Your task to perform on an android device: Show me popular games on the Play Store Image 0: 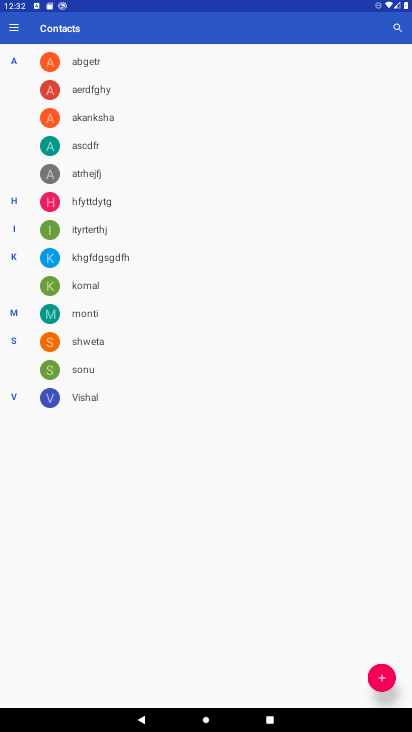
Step 0: press home button
Your task to perform on an android device: Show me popular games on the Play Store Image 1: 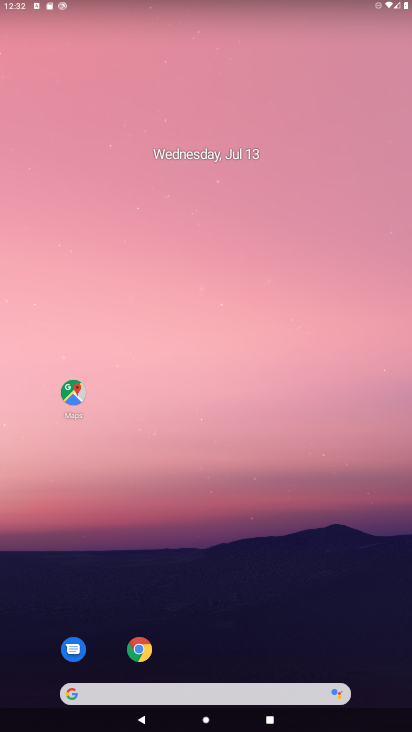
Step 1: drag from (357, 647) to (328, 85)
Your task to perform on an android device: Show me popular games on the Play Store Image 2: 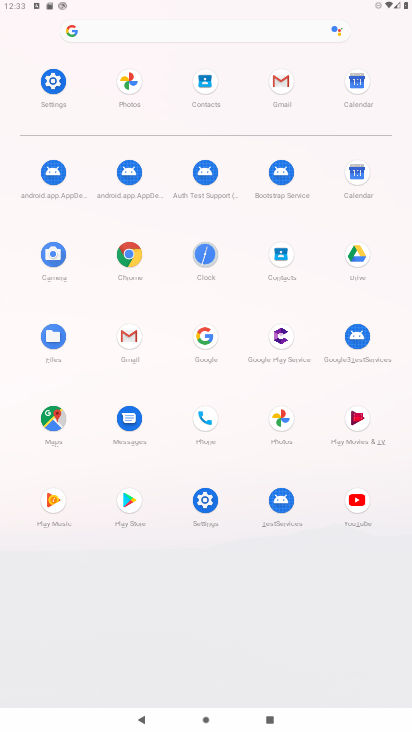
Step 2: click (128, 497)
Your task to perform on an android device: Show me popular games on the Play Store Image 3: 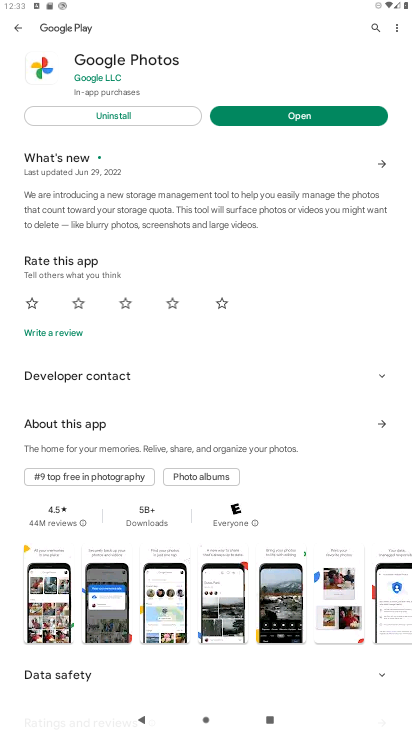
Step 3: press back button
Your task to perform on an android device: Show me popular games on the Play Store Image 4: 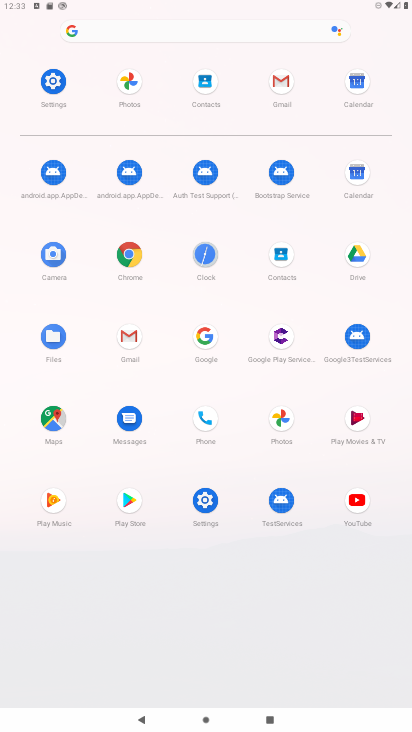
Step 4: click (129, 500)
Your task to perform on an android device: Show me popular games on the Play Store Image 5: 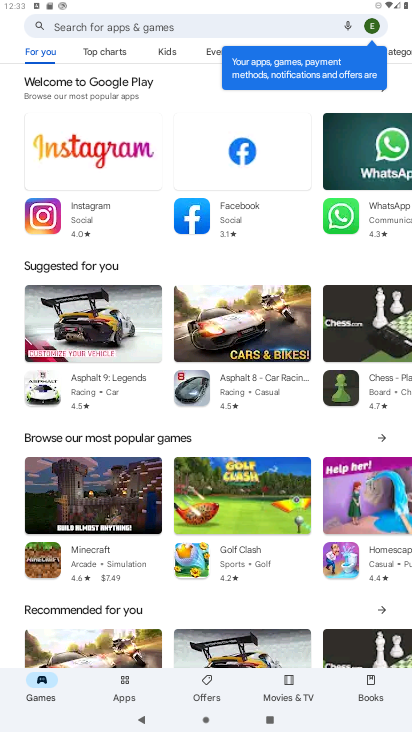
Step 5: click (382, 431)
Your task to perform on an android device: Show me popular games on the Play Store Image 6: 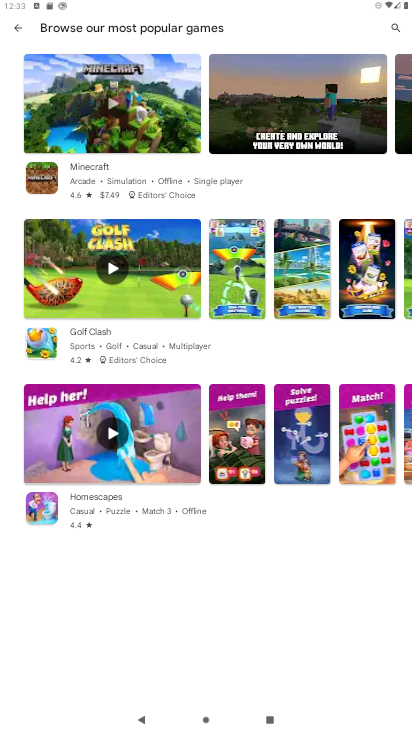
Step 6: task complete